Your task to perform on an android device: Add macbook pro 15 inch to the cart on walmart.com Image 0: 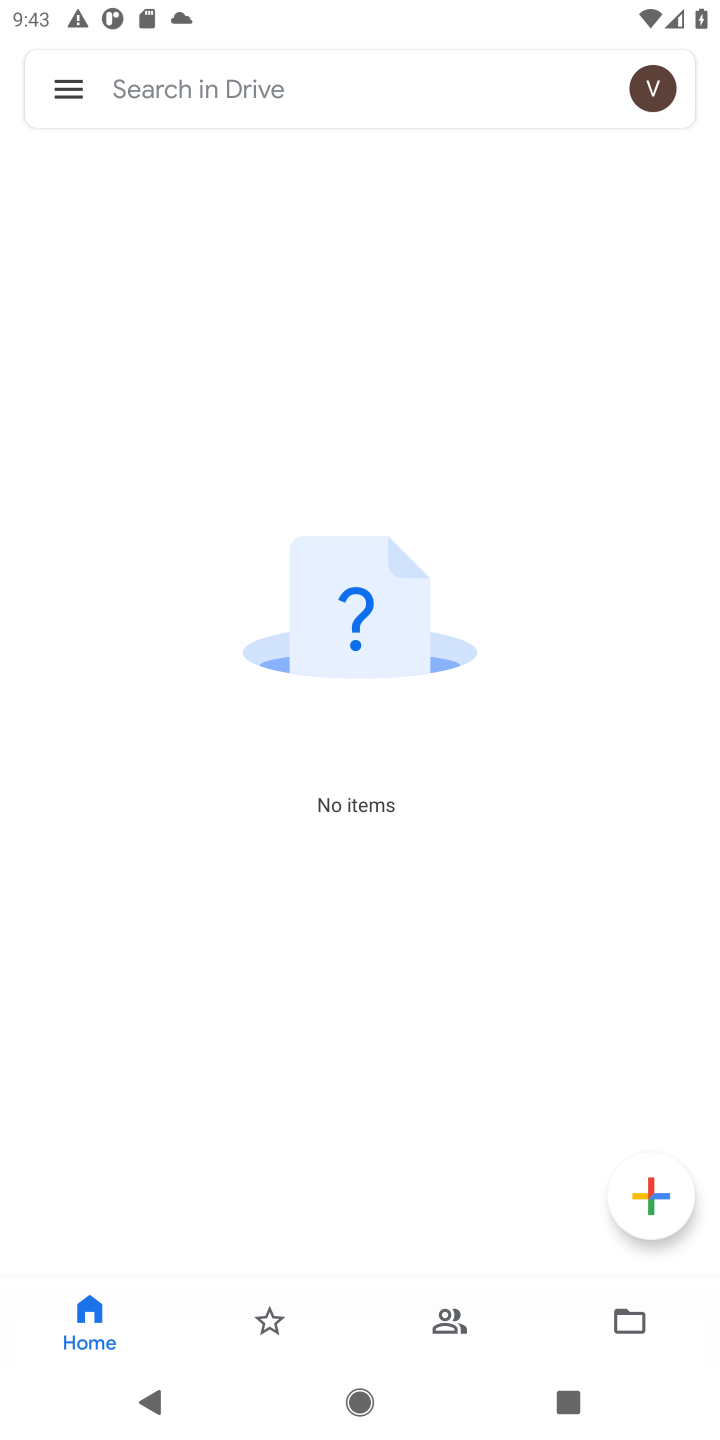
Step 0: press home button
Your task to perform on an android device: Add macbook pro 15 inch to the cart on walmart.com Image 1: 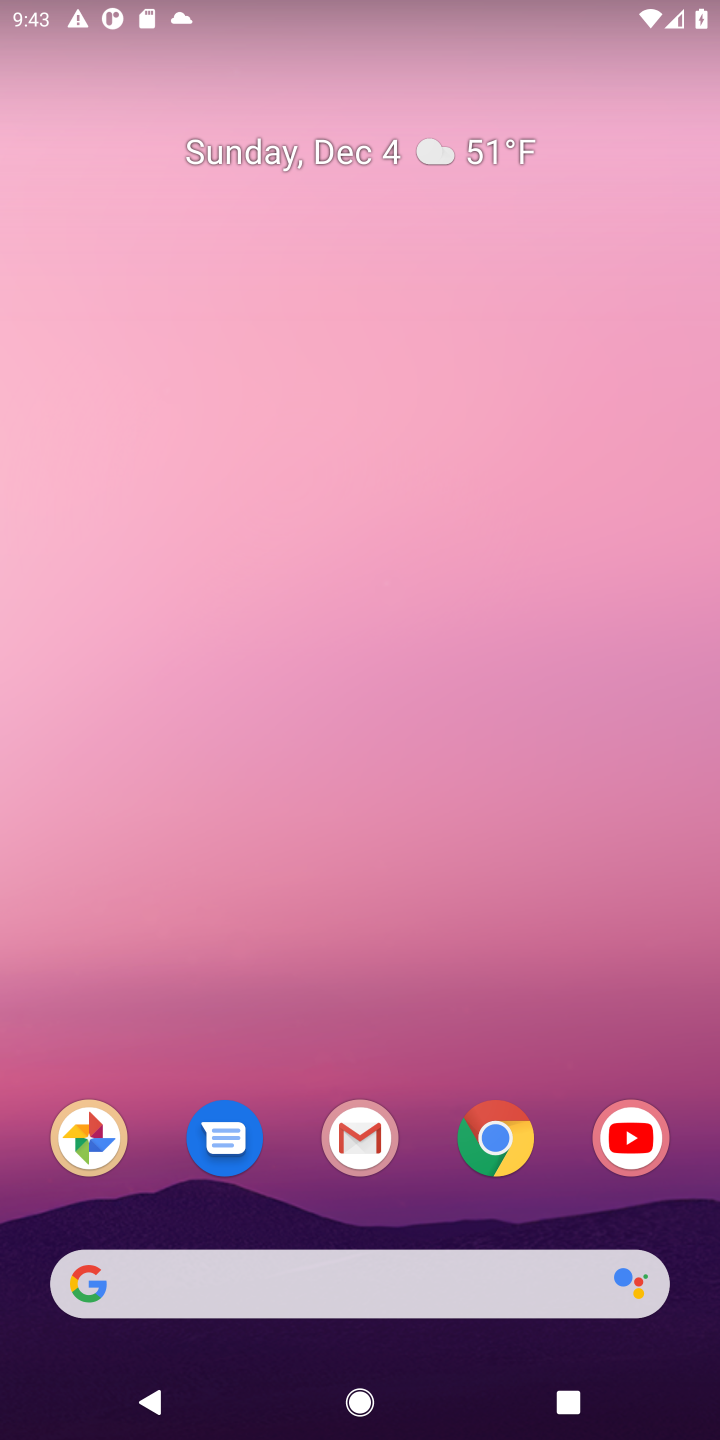
Step 1: click (485, 1139)
Your task to perform on an android device: Add macbook pro 15 inch to the cart on walmart.com Image 2: 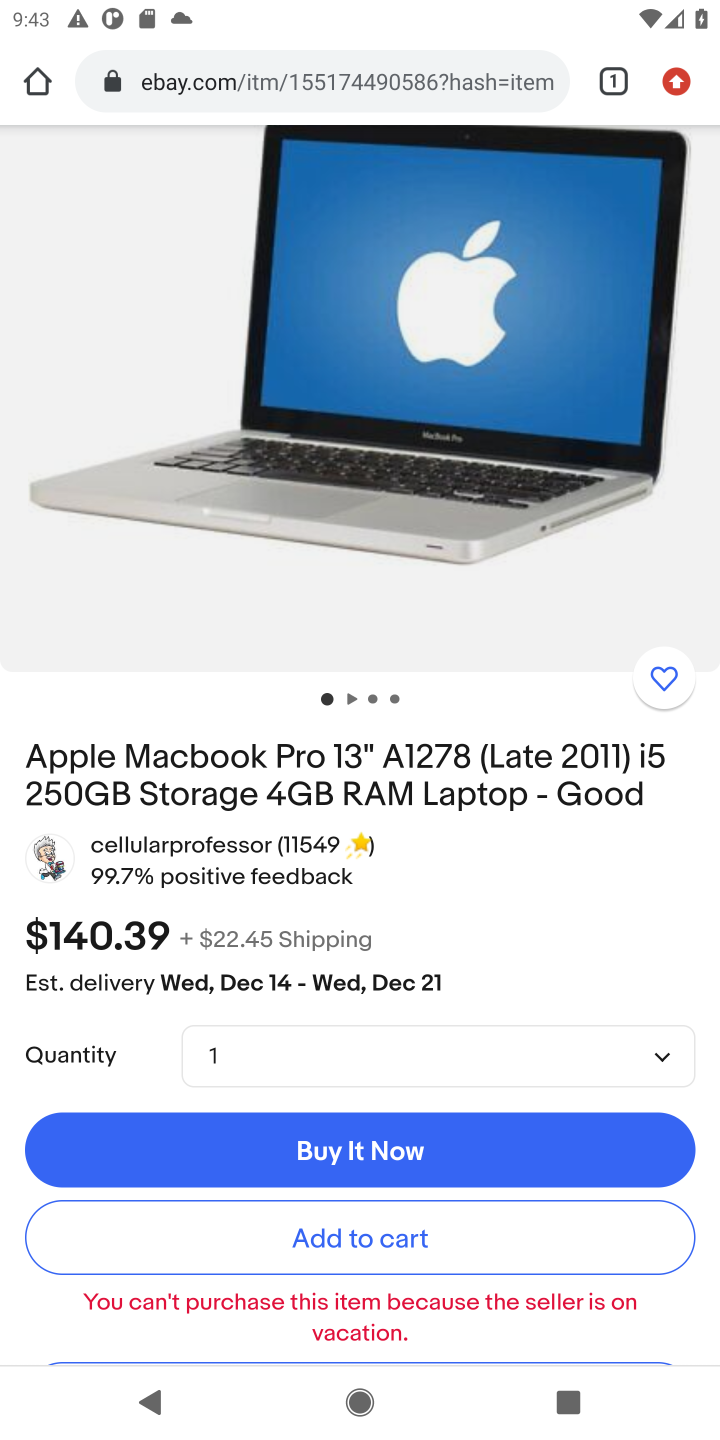
Step 2: click (442, 63)
Your task to perform on an android device: Add macbook pro 15 inch to the cart on walmart.com Image 3: 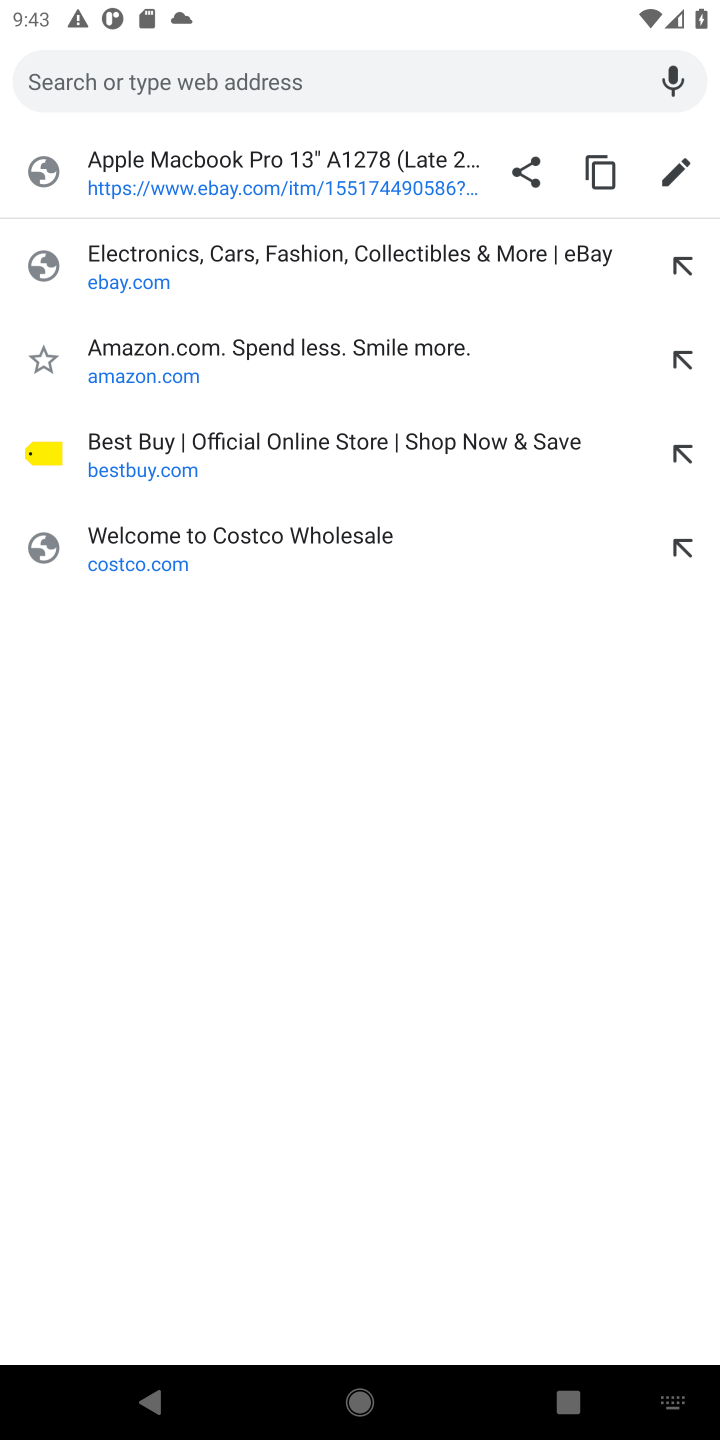
Step 3: type "walmart.com"
Your task to perform on an android device: Add macbook pro 15 inch to the cart on walmart.com Image 4: 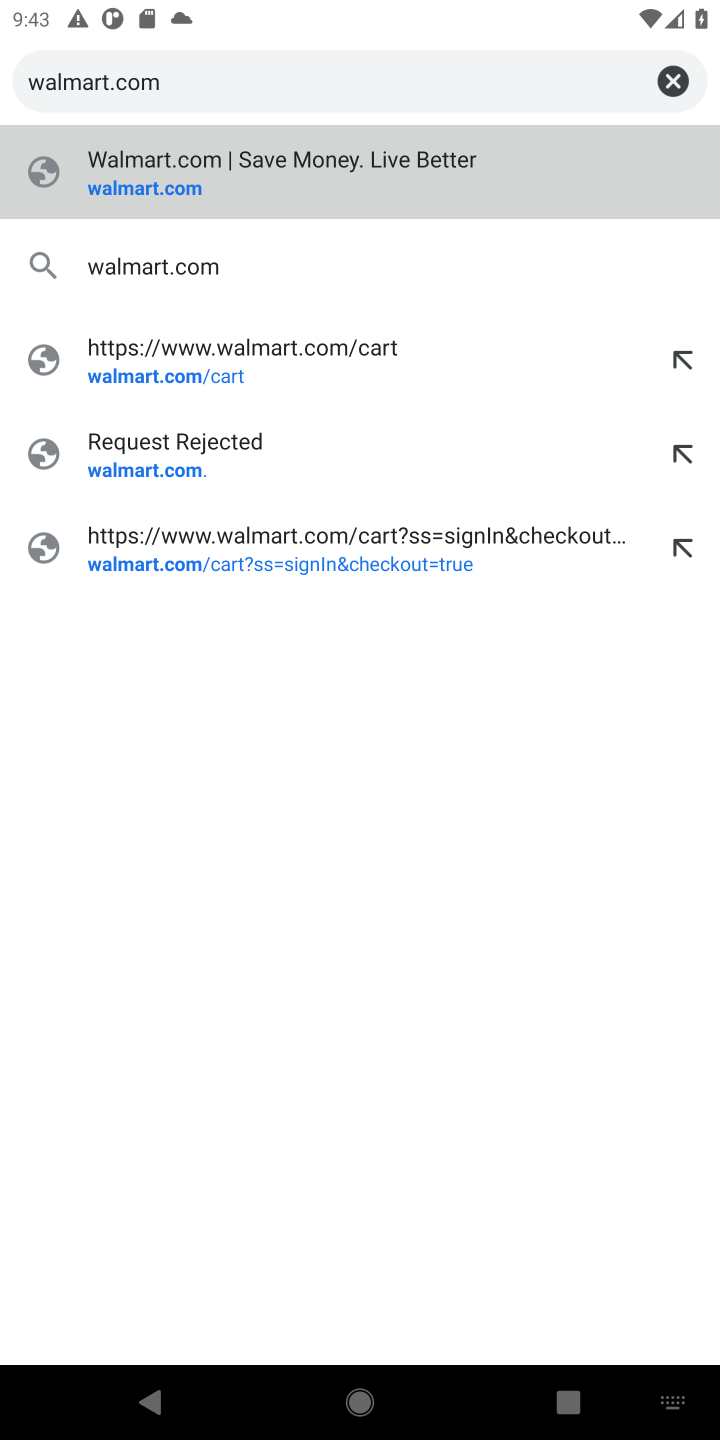
Step 4: press enter
Your task to perform on an android device: Add macbook pro 15 inch to the cart on walmart.com Image 5: 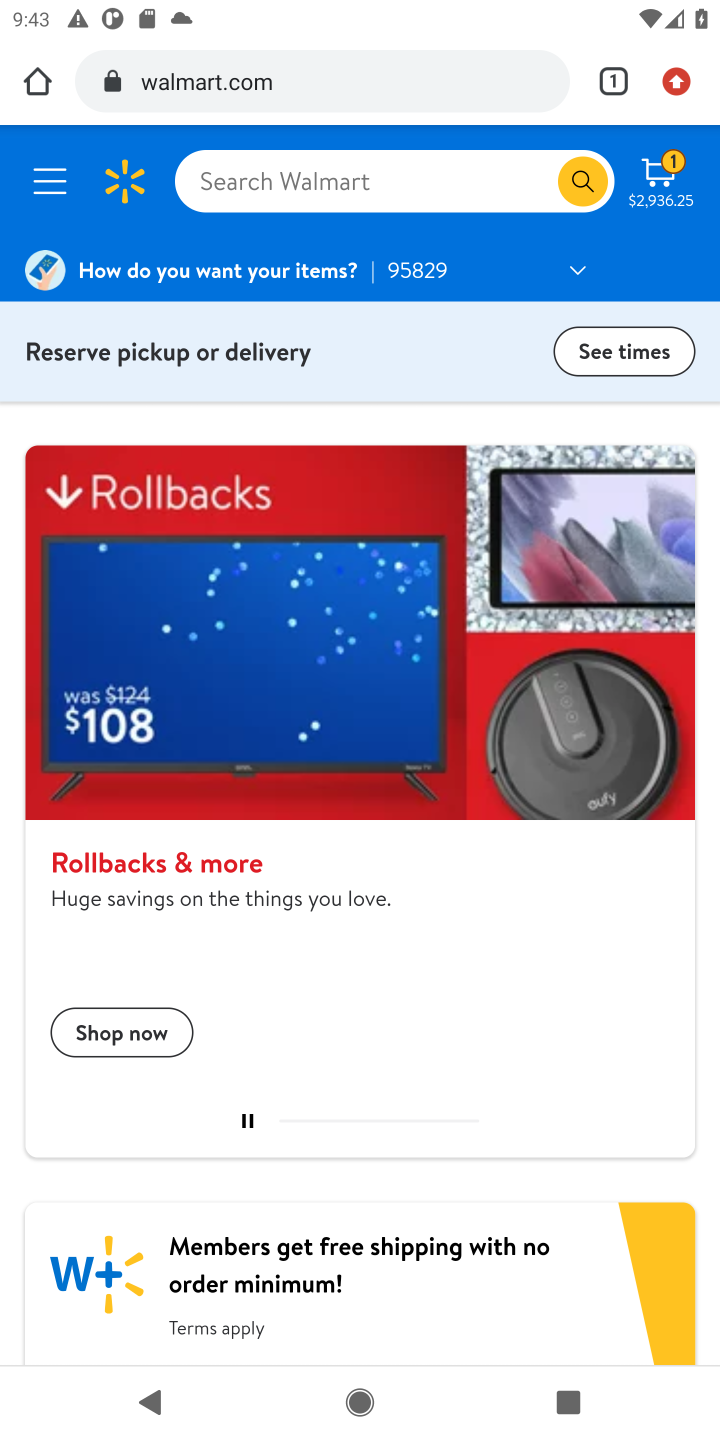
Step 5: click (452, 183)
Your task to perform on an android device: Add macbook pro 15 inch to the cart on walmart.com Image 6: 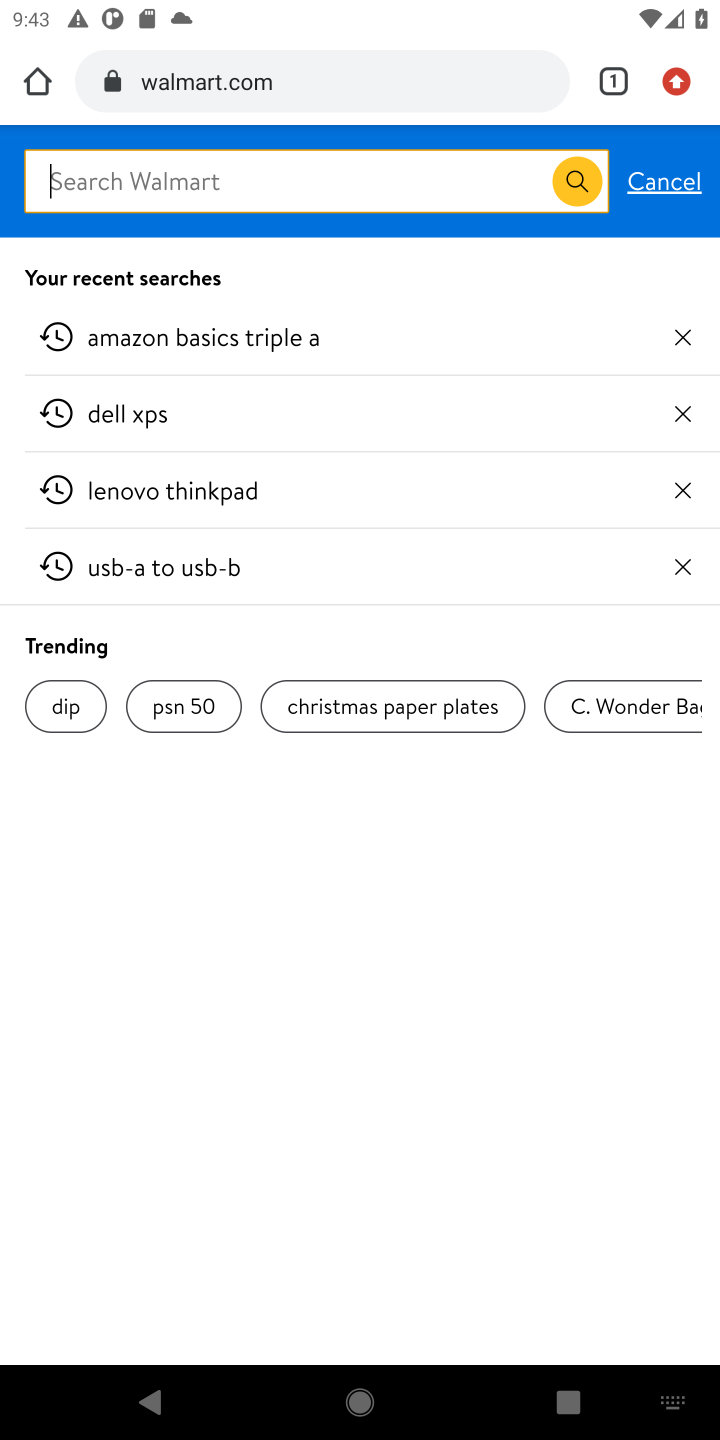
Step 6: type "macbook pro 15 inch"
Your task to perform on an android device: Add macbook pro 15 inch to the cart on walmart.com Image 7: 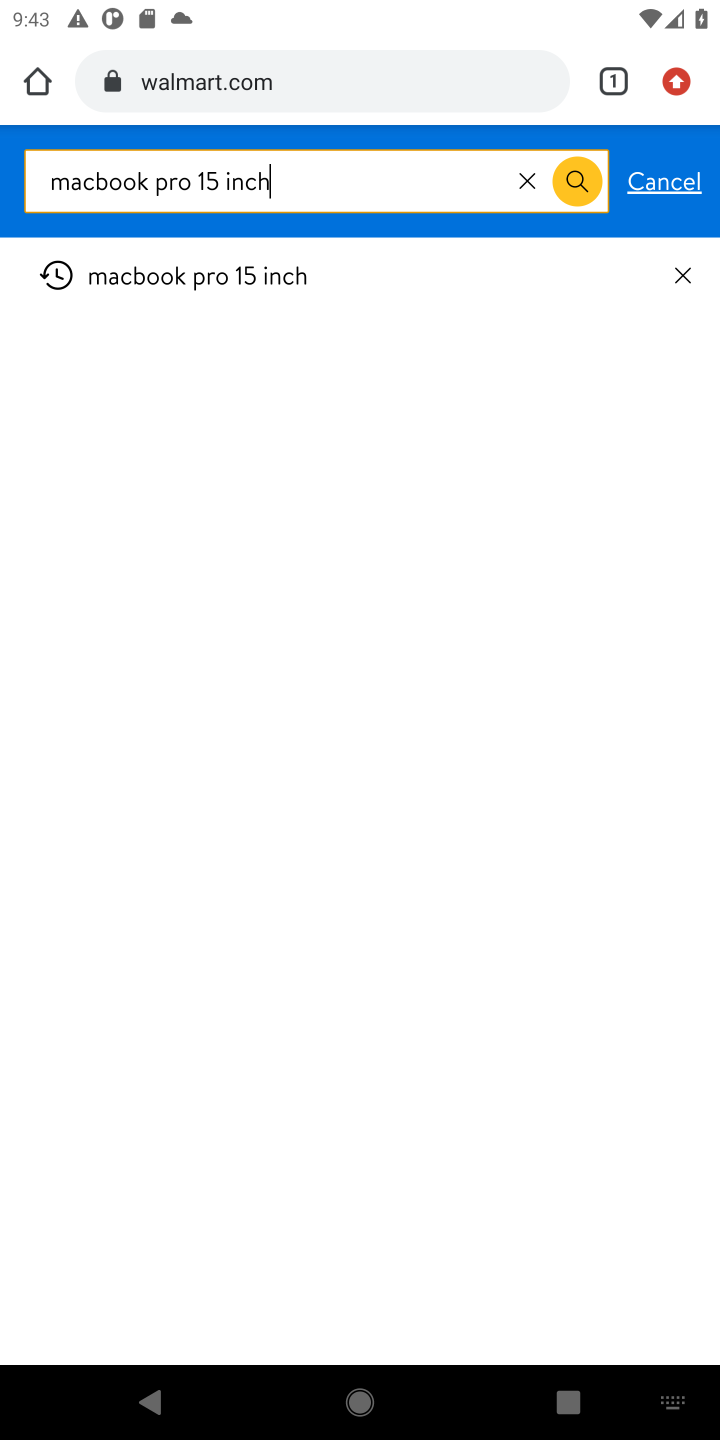
Step 7: press enter
Your task to perform on an android device: Add macbook pro 15 inch to the cart on walmart.com Image 8: 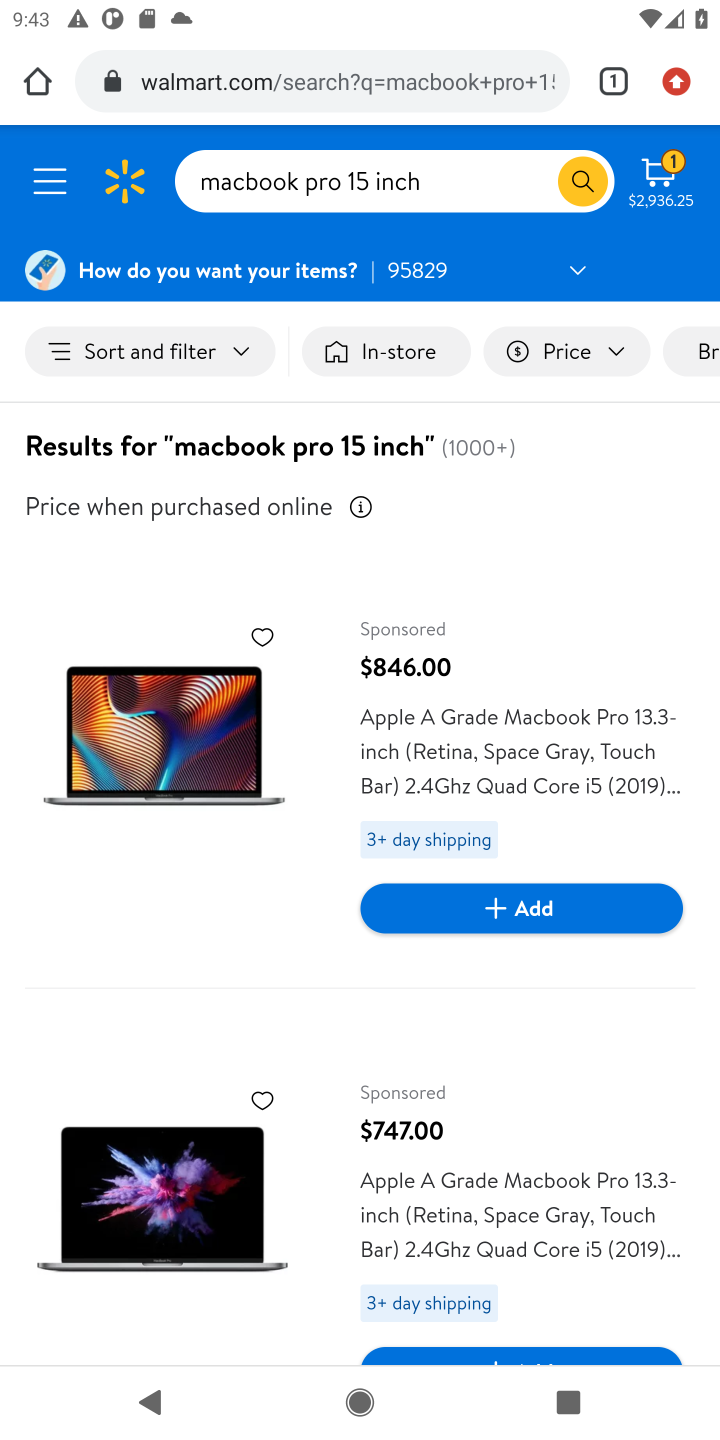
Step 8: drag from (590, 1006) to (558, 482)
Your task to perform on an android device: Add macbook pro 15 inch to the cart on walmart.com Image 9: 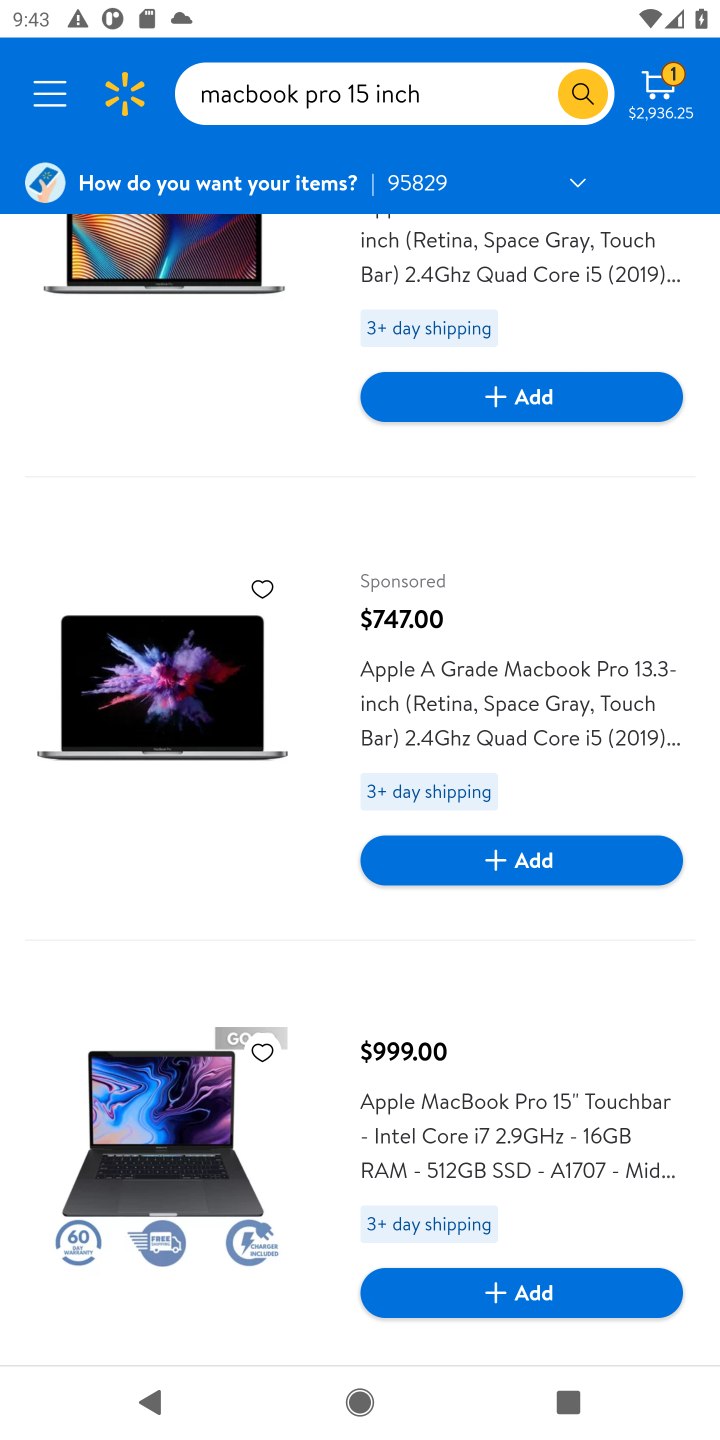
Step 9: click (178, 1138)
Your task to perform on an android device: Add macbook pro 15 inch to the cart on walmart.com Image 10: 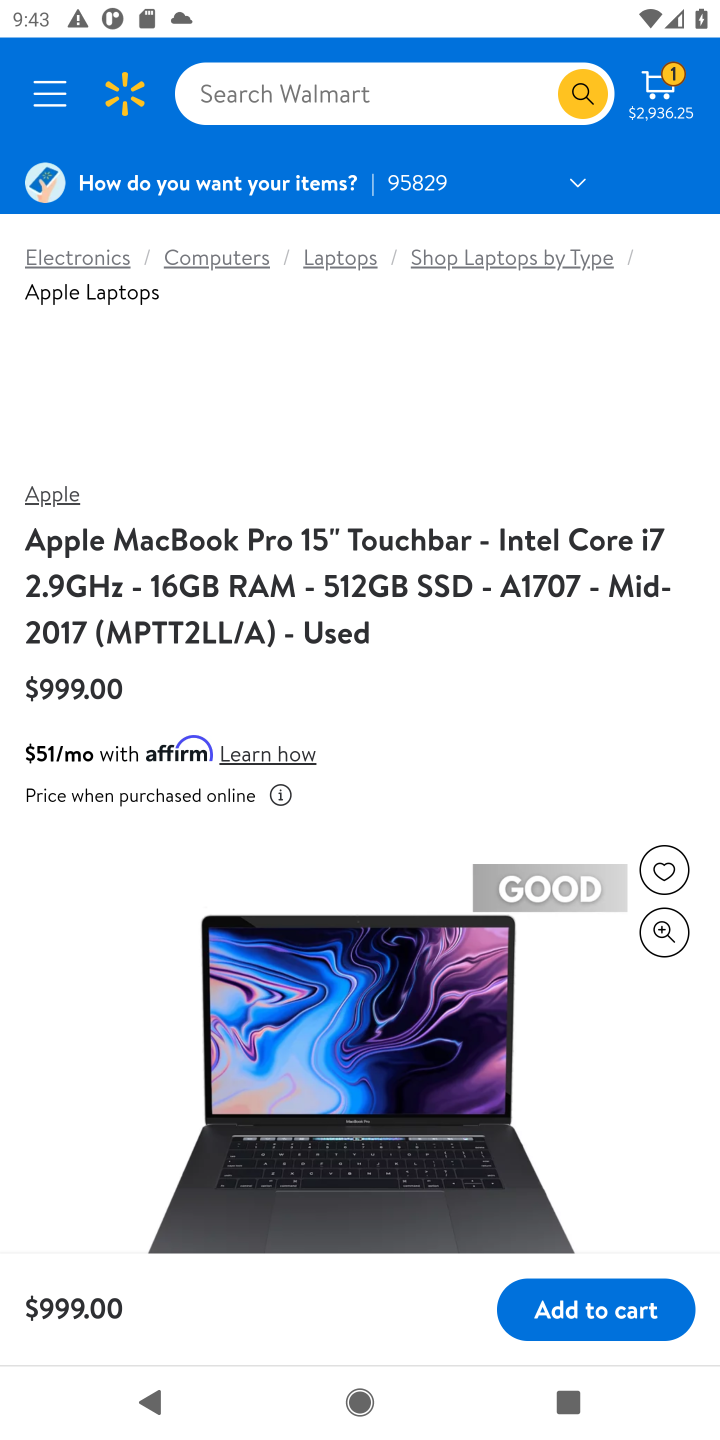
Step 10: drag from (494, 703) to (536, 466)
Your task to perform on an android device: Add macbook pro 15 inch to the cart on walmart.com Image 11: 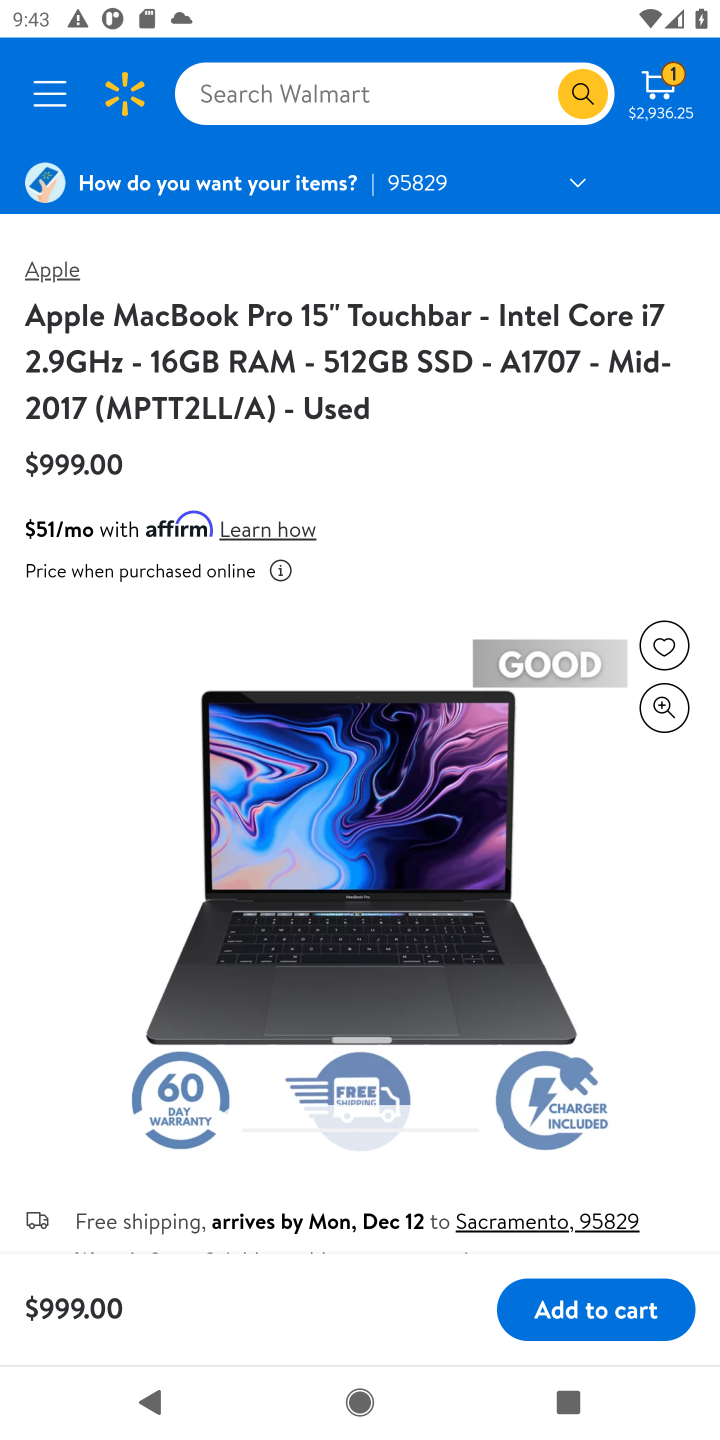
Step 11: click (604, 1319)
Your task to perform on an android device: Add macbook pro 15 inch to the cart on walmart.com Image 12: 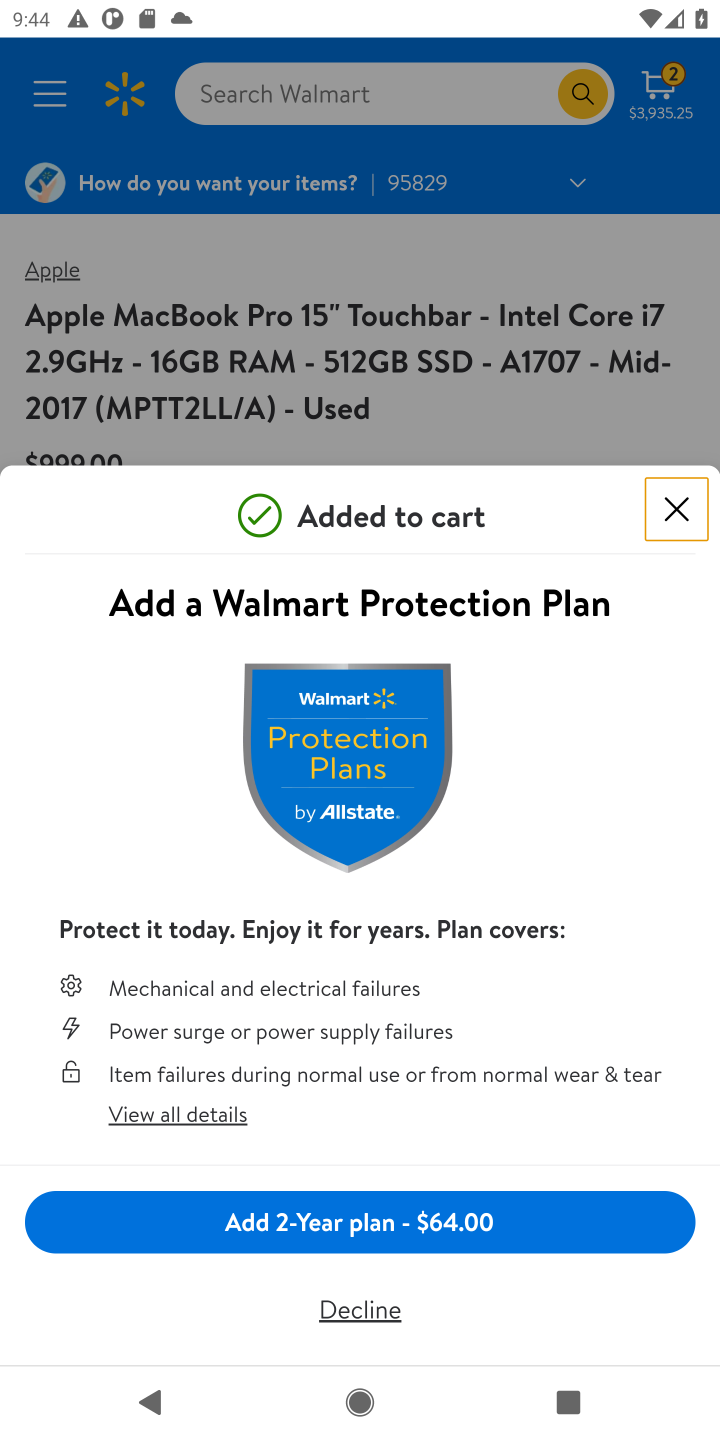
Step 12: task complete